Your task to perform on an android device: Open the calendar and show me this week's events Image 0: 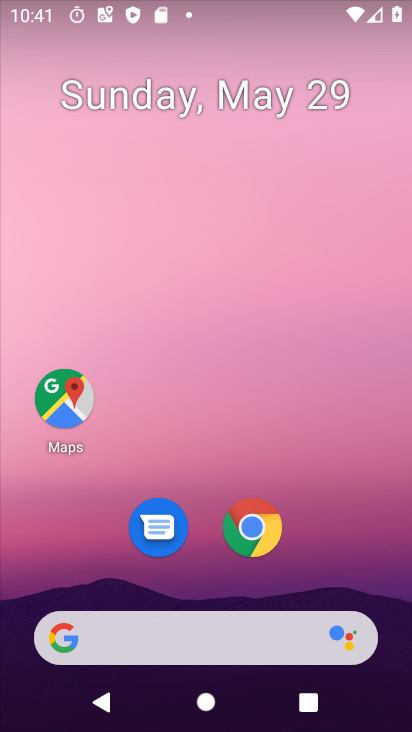
Step 0: drag from (355, 456) to (331, 47)
Your task to perform on an android device: Open the calendar and show me this week's events Image 1: 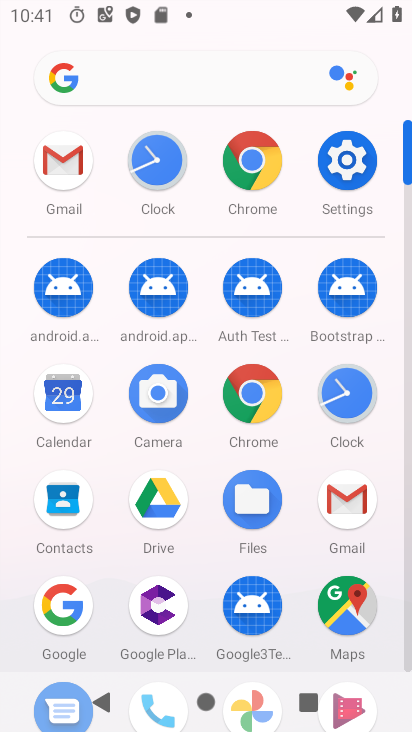
Step 1: click (67, 388)
Your task to perform on an android device: Open the calendar and show me this week's events Image 2: 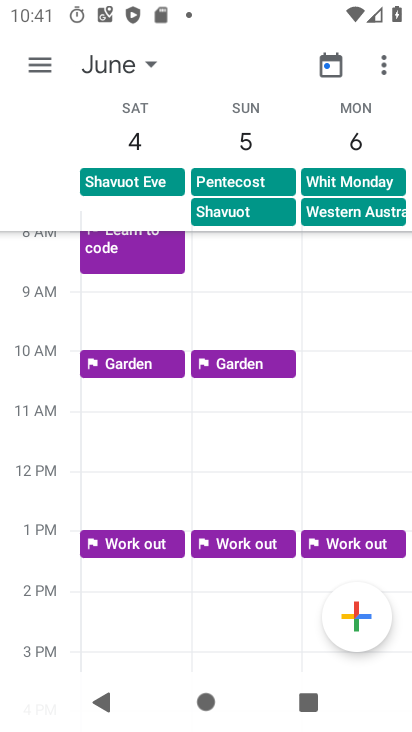
Step 2: click (46, 56)
Your task to perform on an android device: Open the calendar and show me this week's events Image 3: 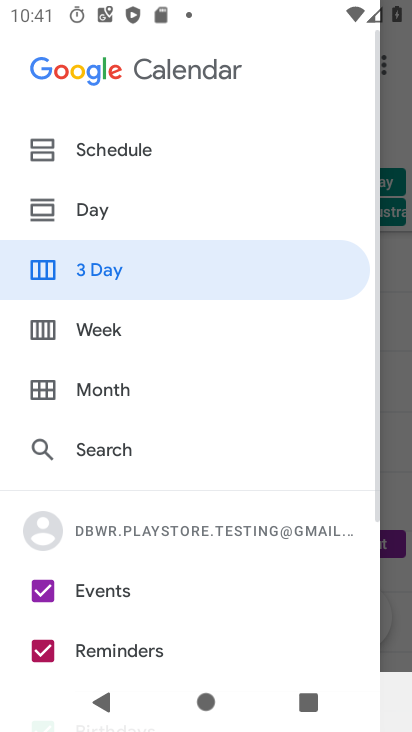
Step 3: click (124, 338)
Your task to perform on an android device: Open the calendar and show me this week's events Image 4: 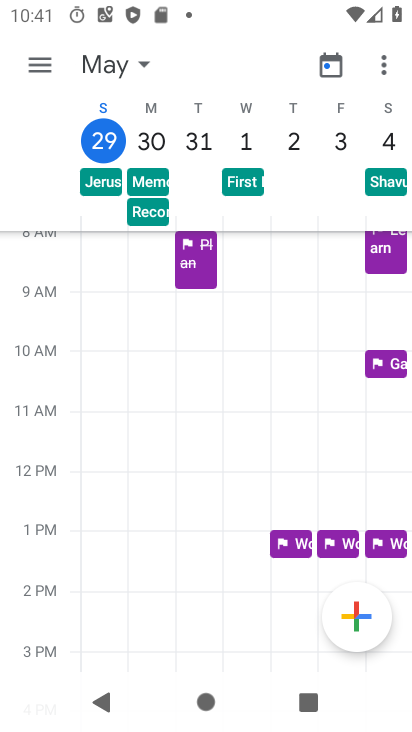
Step 4: task complete